Your task to perform on an android device: open app "VLC for Android" (install if not already installed) Image 0: 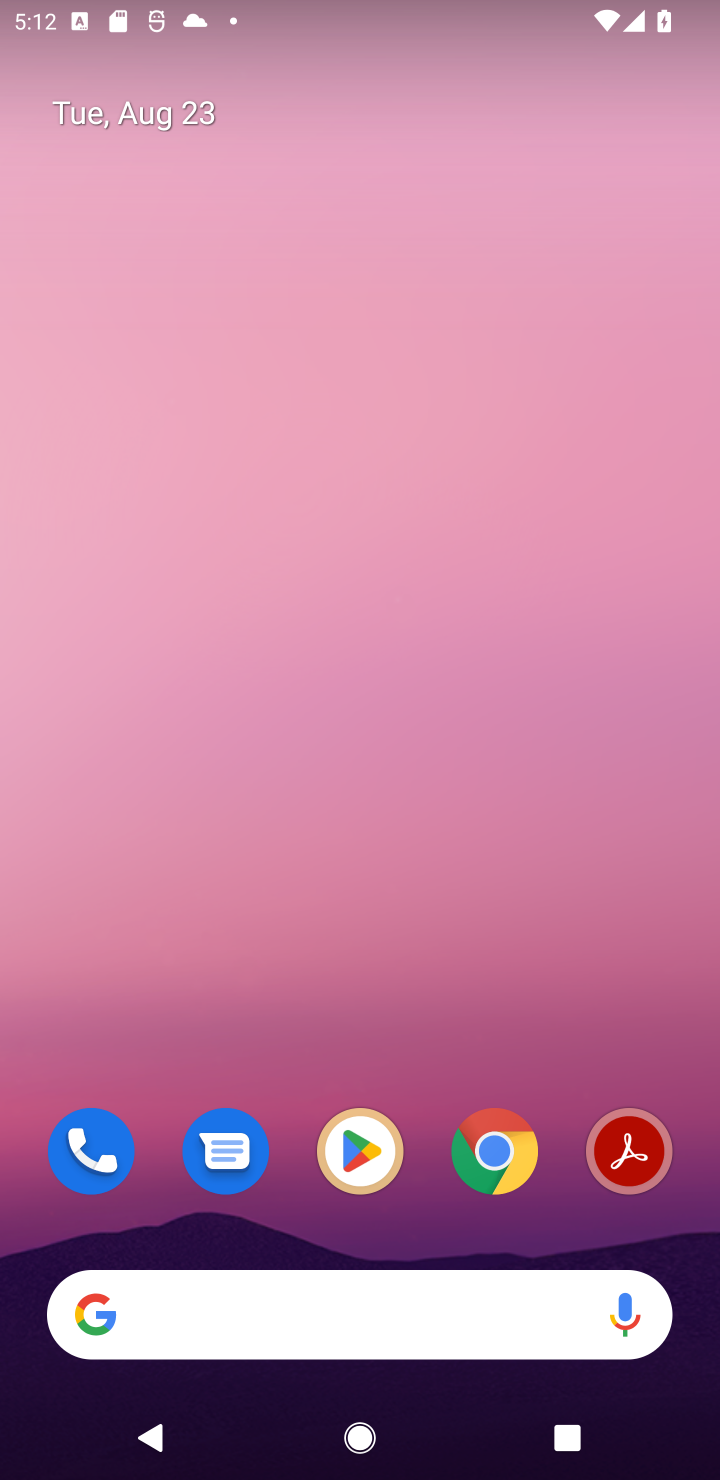
Step 0: click (358, 1161)
Your task to perform on an android device: open app "VLC for Android" (install if not already installed) Image 1: 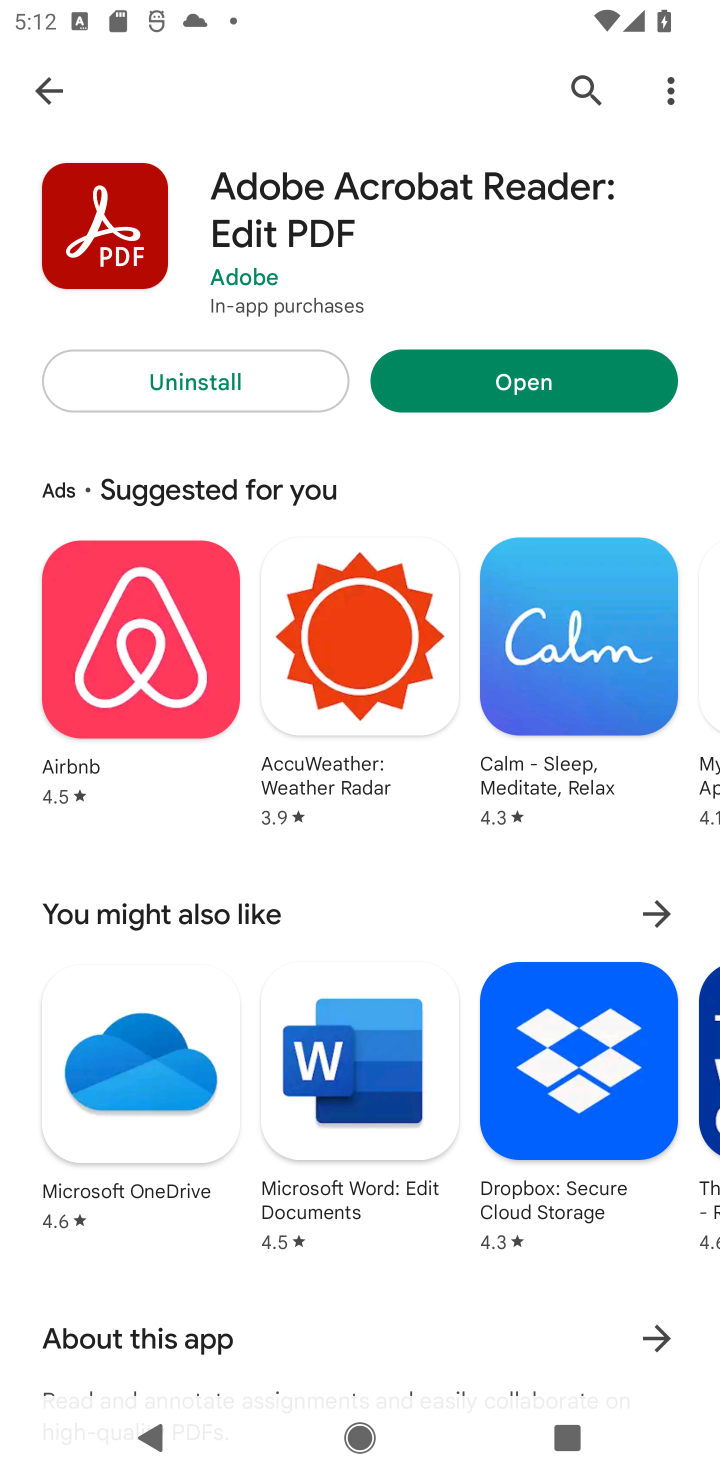
Step 1: click (577, 76)
Your task to perform on an android device: open app "VLC for Android" (install if not already installed) Image 2: 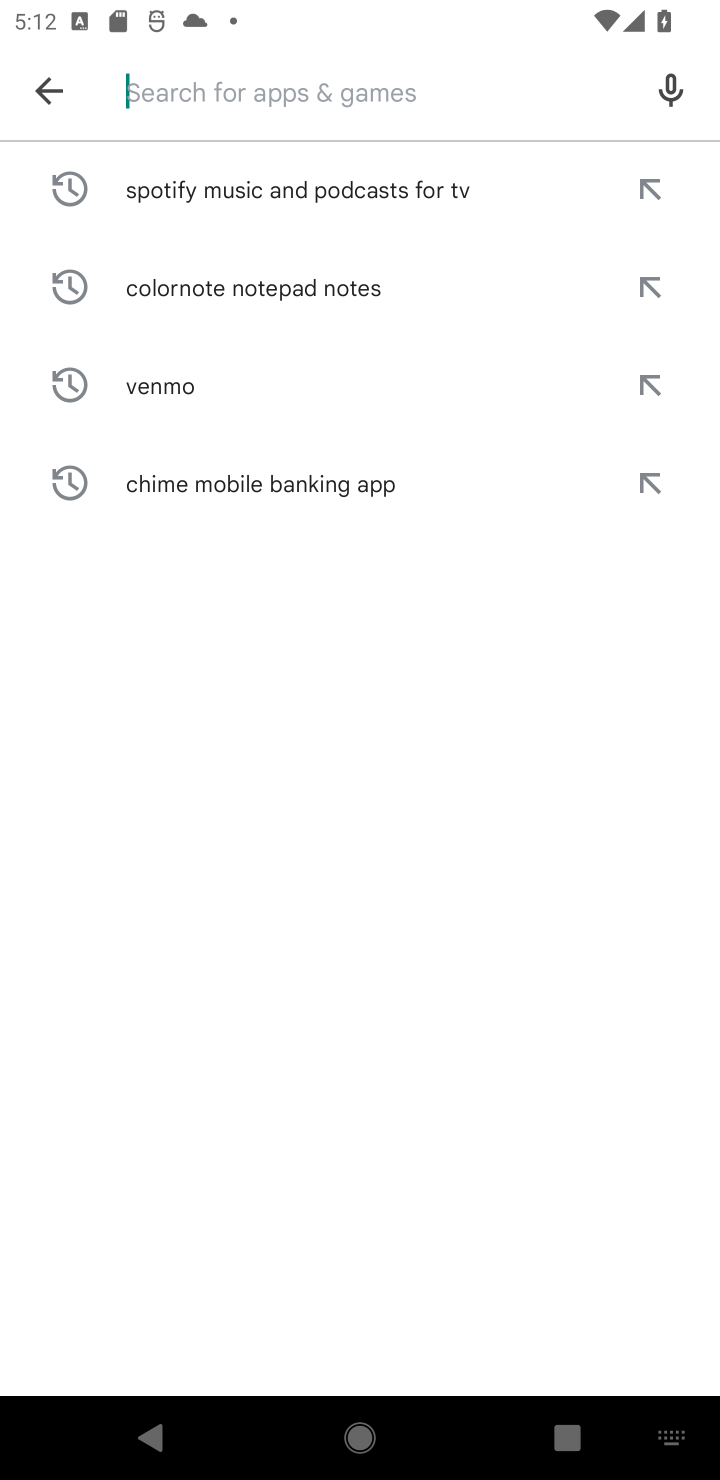
Step 2: type "VLC for Android"
Your task to perform on an android device: open app "VLC for Android" (install if not already installed) Image 3: 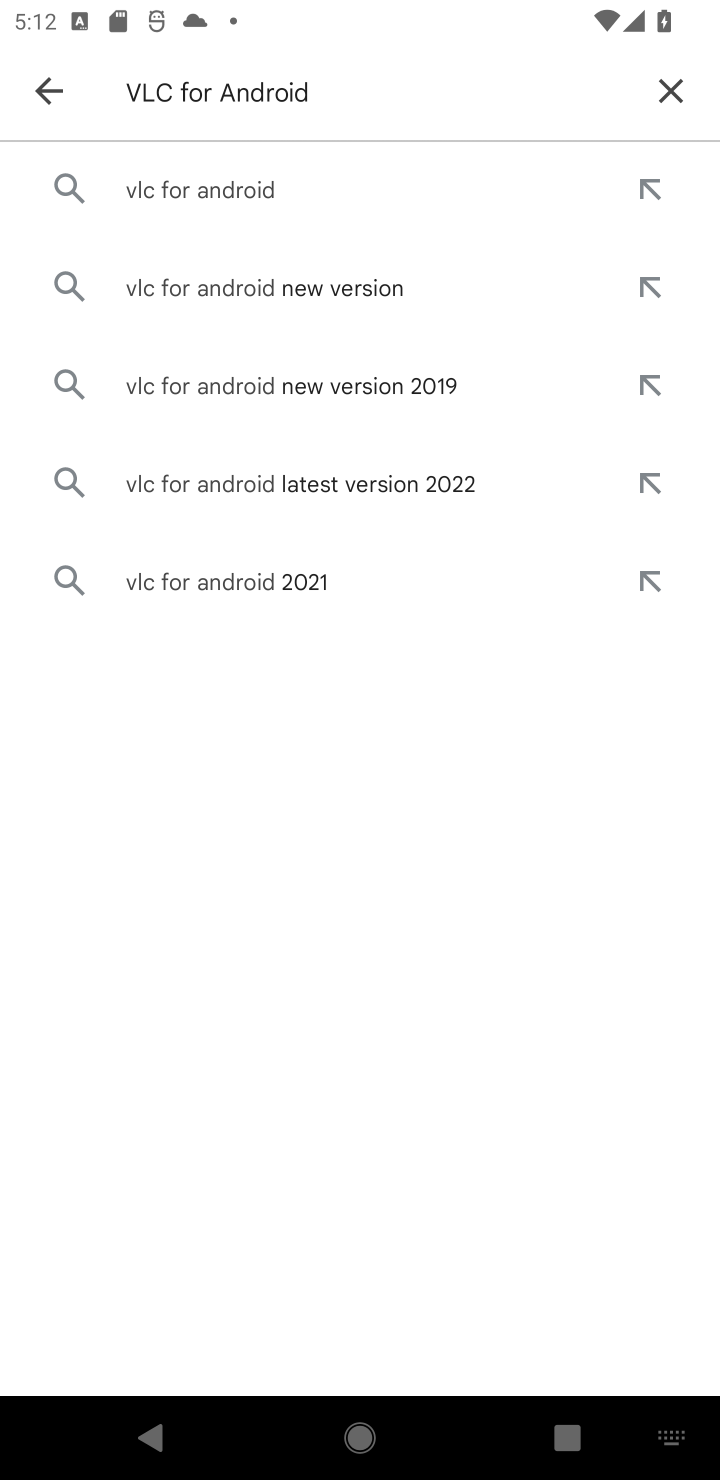
Step 3: click (154, 186)
Your task to perform on an android device: open app "VLC for Android" (install if not already installed) Image 4: 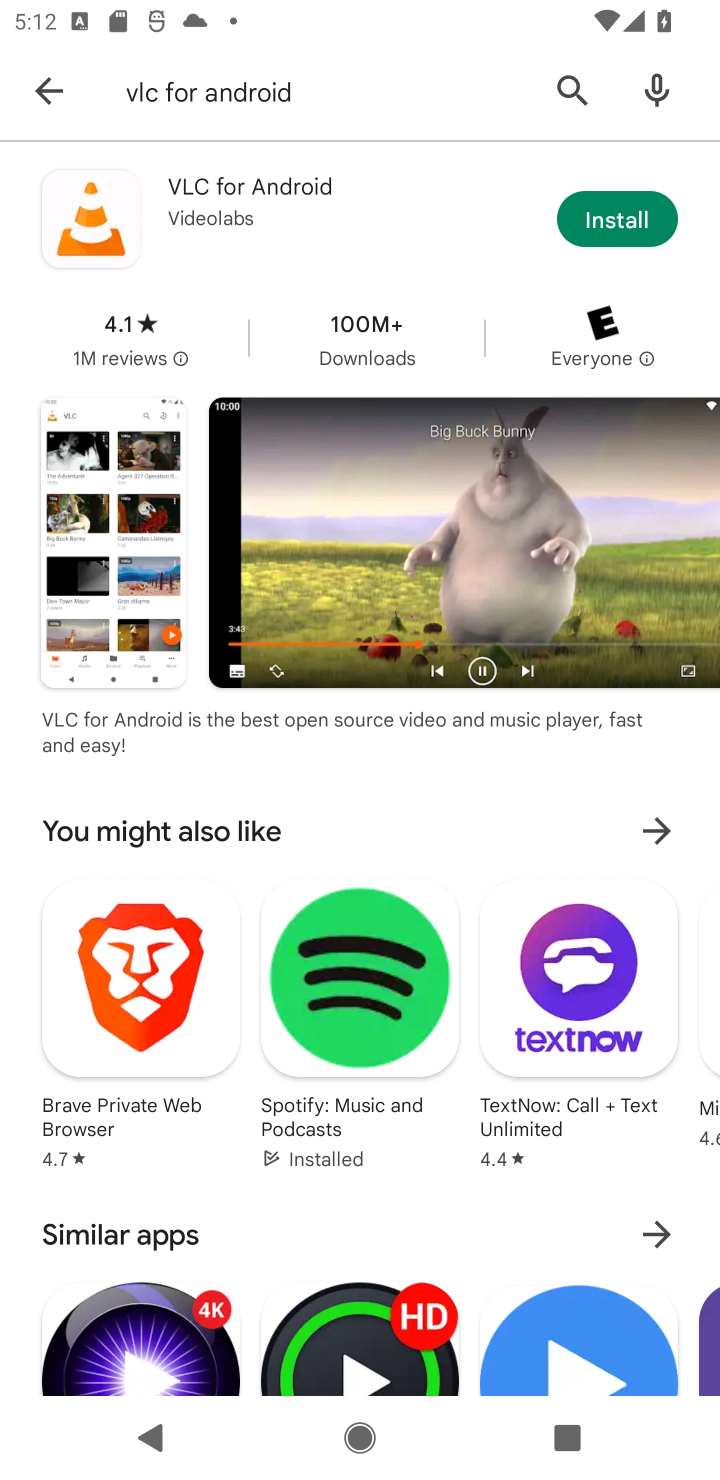
Step 4: click (637, 217)
Your task to perform on an android device: open app "VLC for Android" (install if not already installed) Image 5: 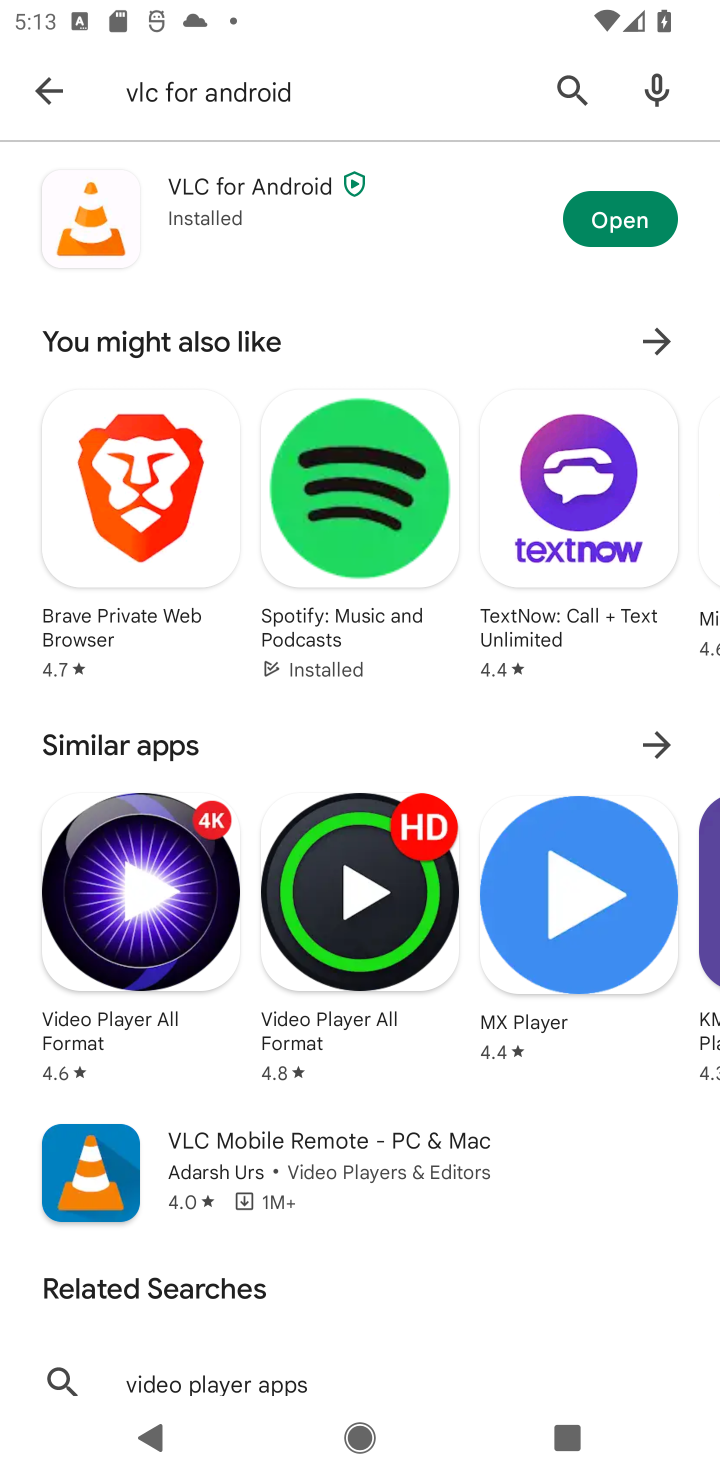
Step 5: click (624, 226)
Your task to perform on an android device: open app "VLC for Android" (install if not already installed) Image 6: 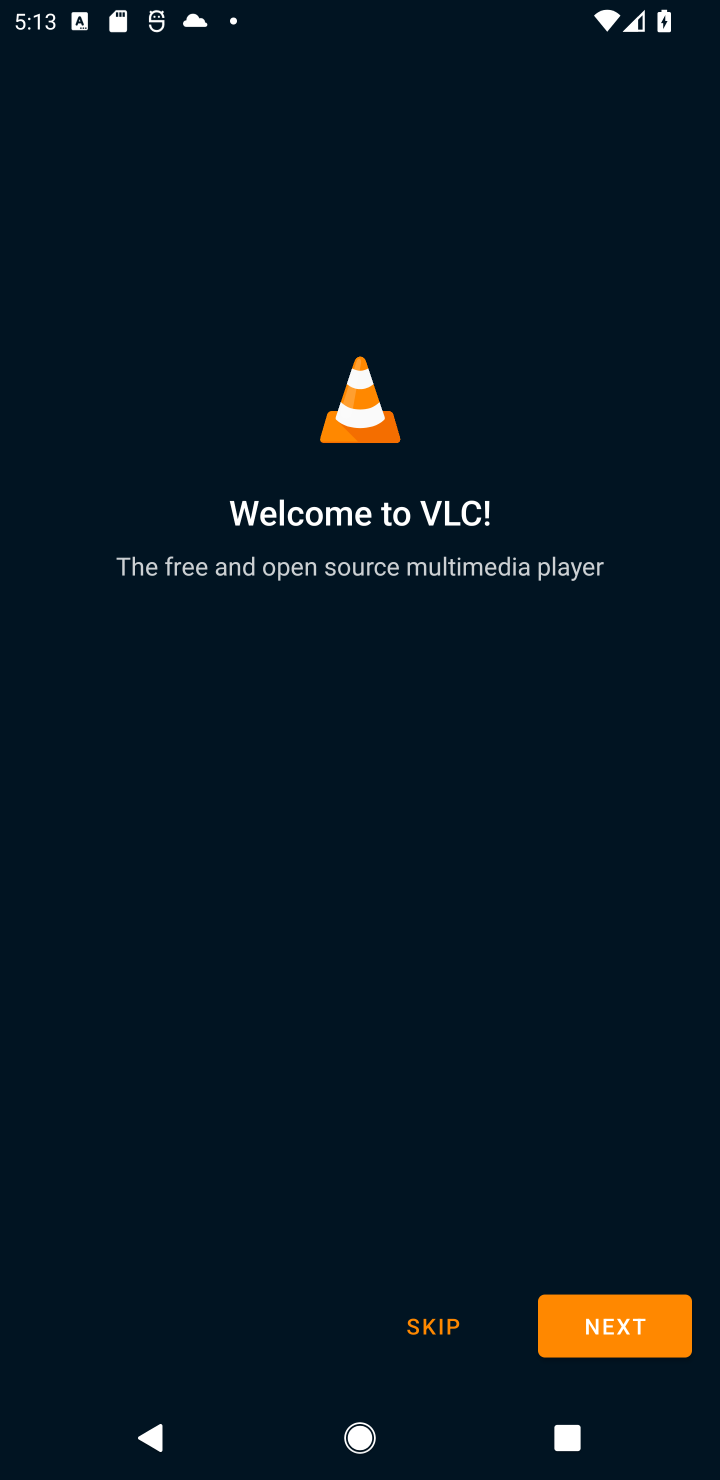
Step 6: task complete